Your task to perform on an android device: turn notification dots off Image 0: 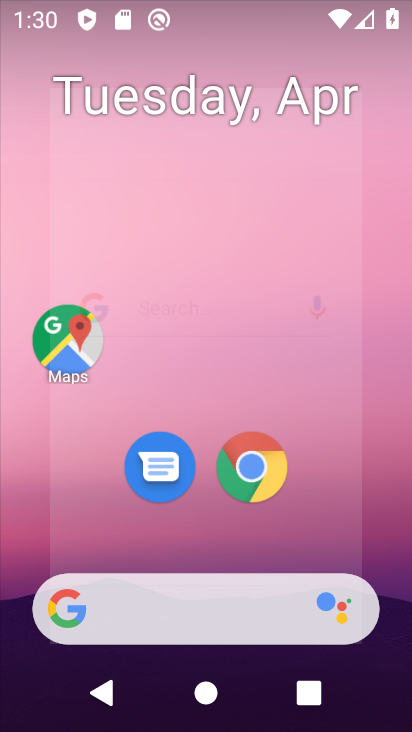
Step 0: drag from (390, 540) to (385, 460)
Your task to perform on an android device: turn notification dots off Image 1: 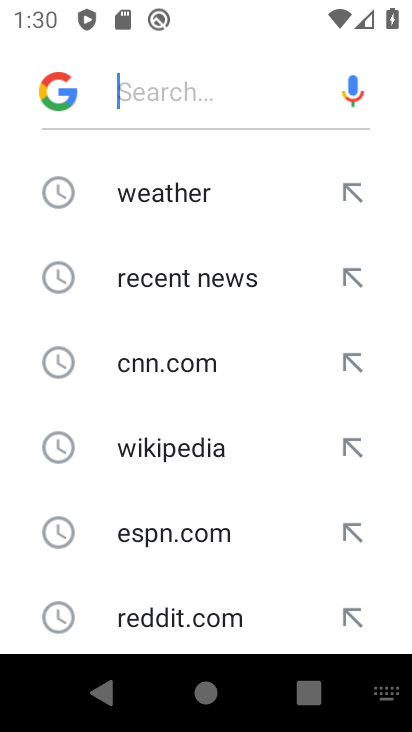
Step 1: press home button
Your task to perform on an android device: turn notification dots off Image 2: 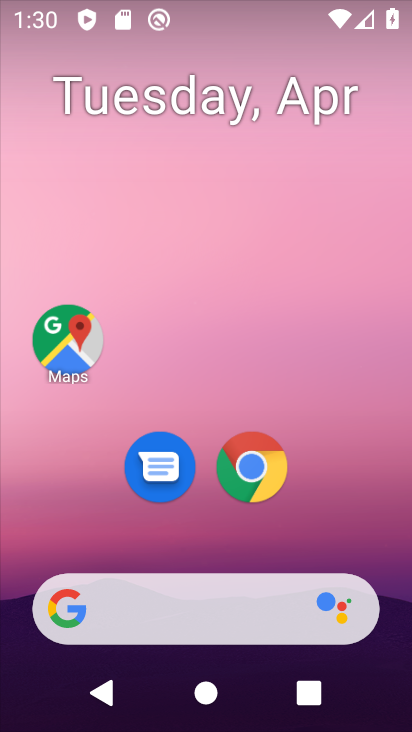
Step 2: drag from (374, 508) to (364, 131)
Your task to perform on an android device: turn notification dots off Image 3: 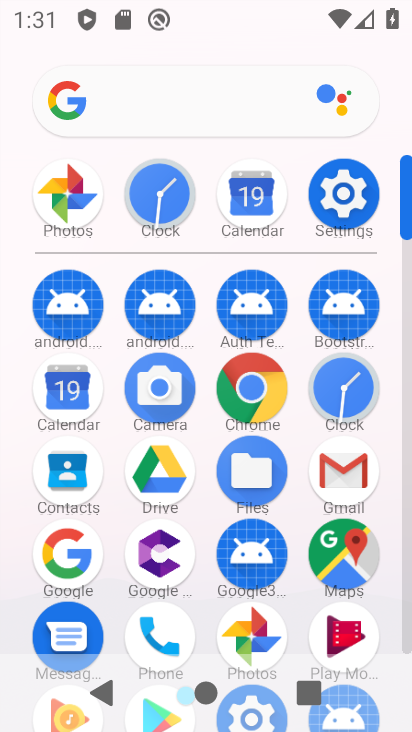
Step 3: click (340, 187)
Your task to perform on an android device: turn notification dots off Image 4: 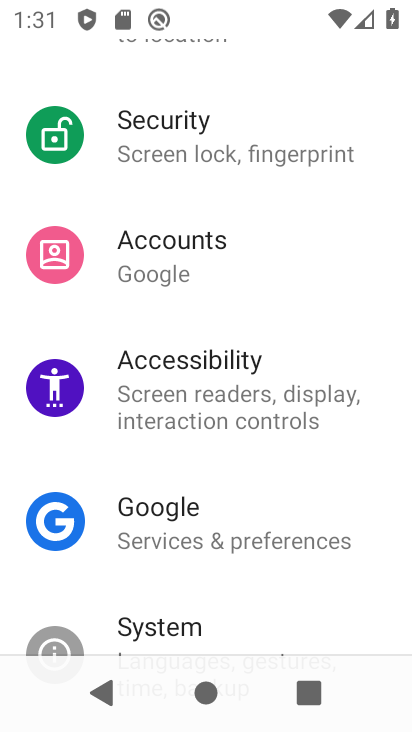
Step 4: drag from (377, 560) to (384, 255)
Your task to perform on an android device: turn notification dots off Image 5: 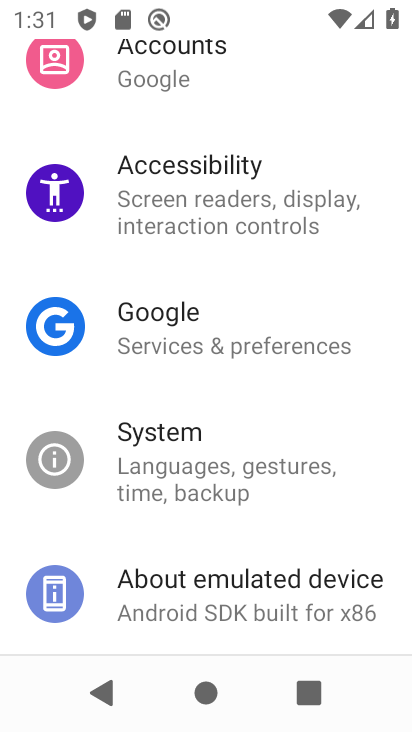
Step 5: drag from (391, 226) to (379, 415)
Your task to perform on an android device: turn notification dots off Image 6: 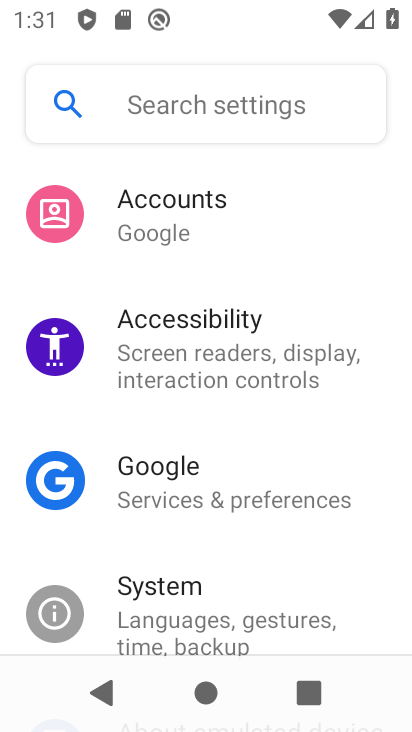
Step 6: drag from (382, 253) to (382, 464)
Your task to perform on an android device: turn notification dots off Image 7: 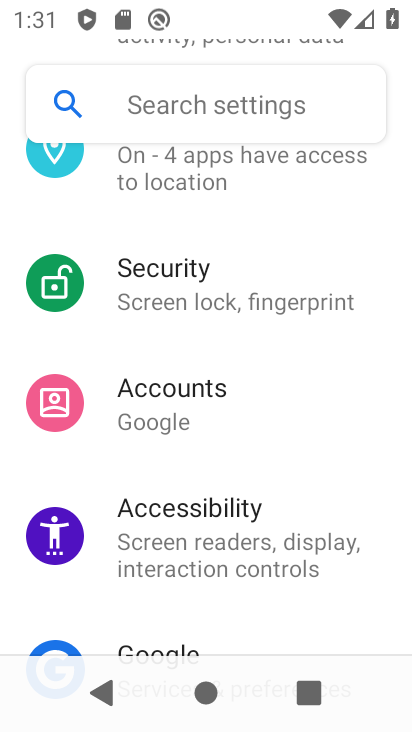
Step 7: drag from (388, 251) to (382, 426)
Your task to perform on an android device: turn notification dots off Image 8: 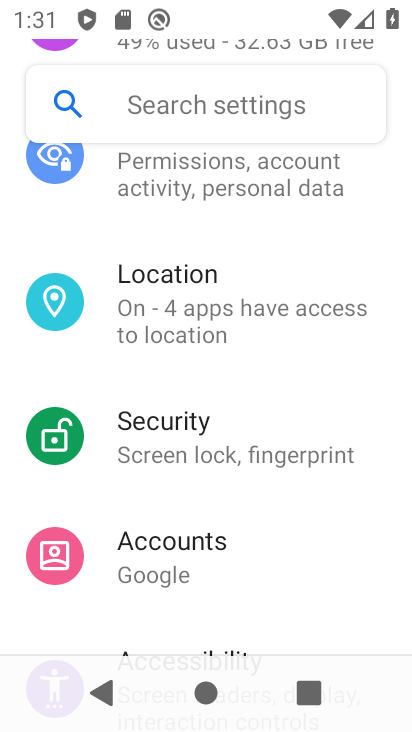
Step 8: drag from (387, 257) to (388, 432)
Your task to perform on an android device: turn notification dots off Image 9: 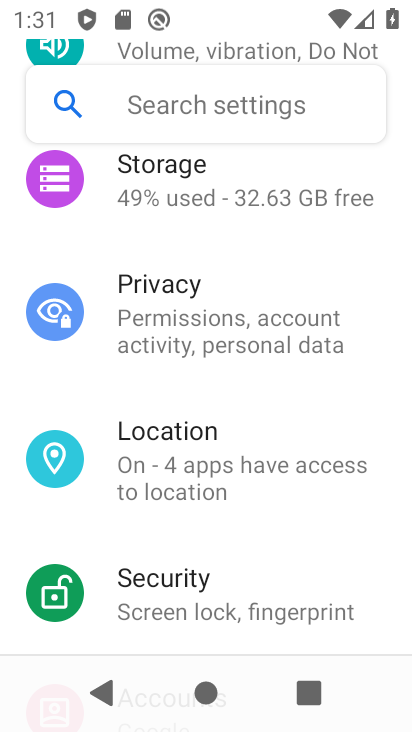
Step 9: drag from (395, 247) to (385, 439)
Your task to perform on an android device: turn notification dots off Image 10: 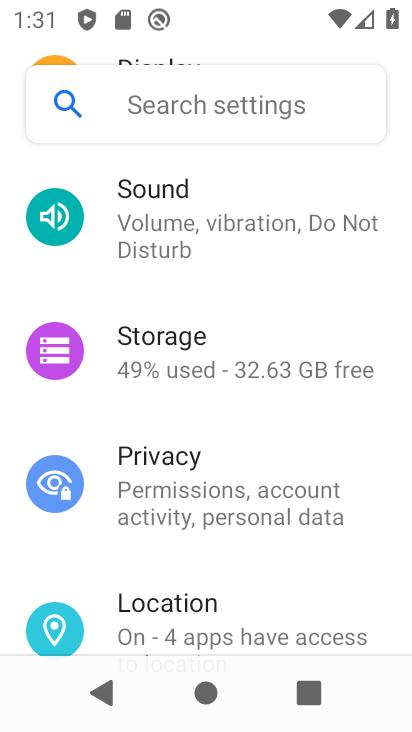
Step 10: drag from (393, 191) to (381, 428)
Your task to perform on an android device: turn notification dots off Image 11: 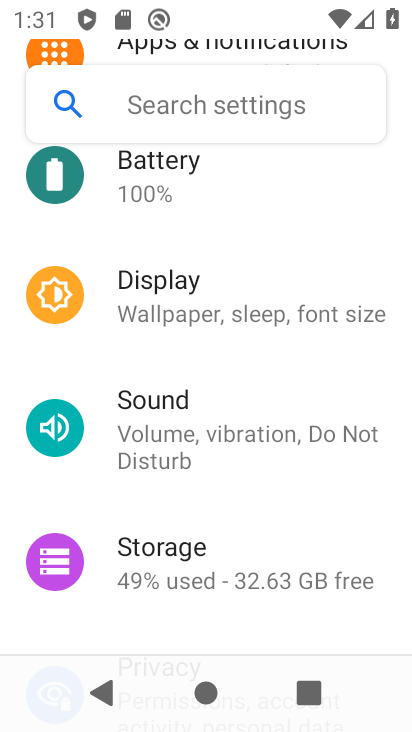
Step 11: drag from (395, 228) to (394, 424)
Your task to perform on an android device: turn notification dots off Image 12: 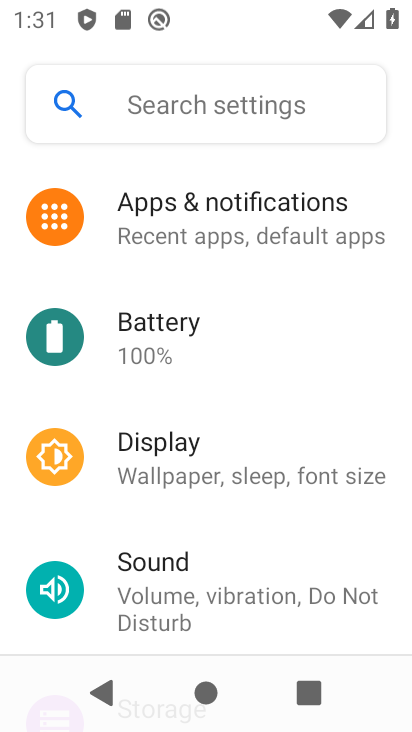
Step 12: click (257, 209)
Your task to perform on an android device: turn notification dots off Image 13: 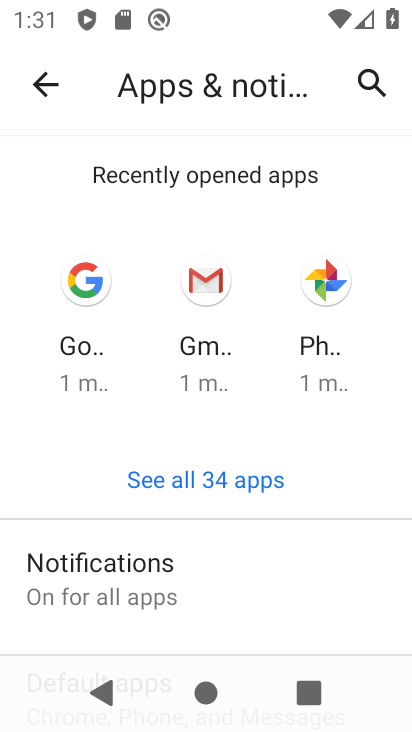
Step 13: drag from (336, 585) to (371, 274)
Your task to perform on an android device: turn notification dots off Image 14: 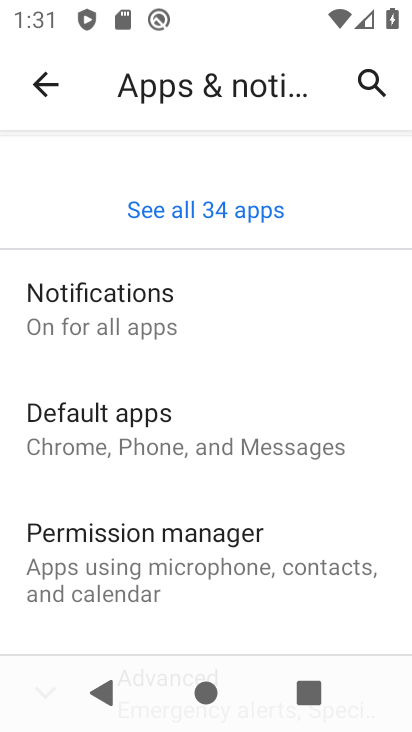
Step 14: click (126, 304)
Your task to perform on an android device: turn notification dots off Image 15: 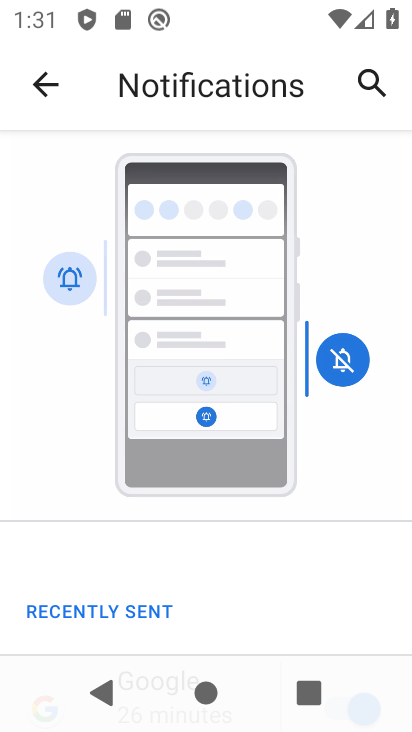
Step 15: drag from (355, 542) to (377, 284)
Your task to perform on an android device: turn notification dots off Image 16: 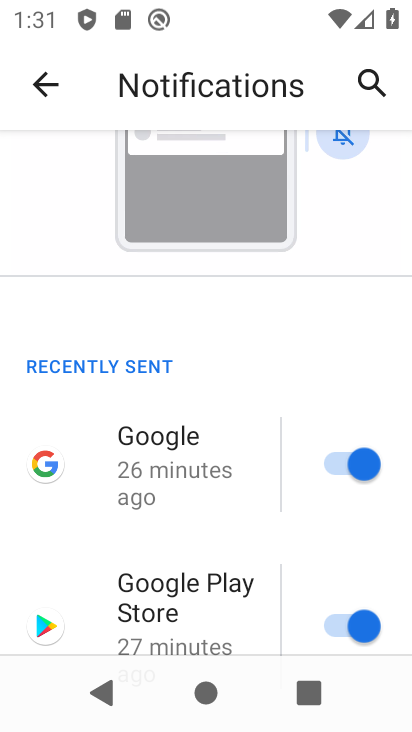
Step 16: drag from (293, 551) to (296, 285)
Your task to perform on an android device: turn notification dots off Image 17: 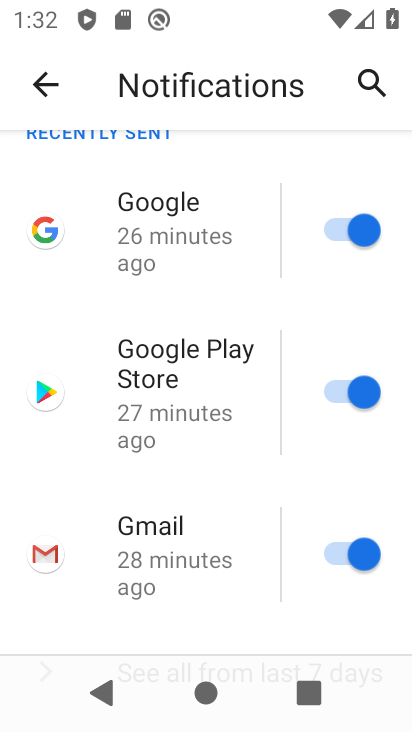
Step 17: drag from (244, 580) to (259, 287)
Your task to perform on an android device: turn notification dots off Image 18: 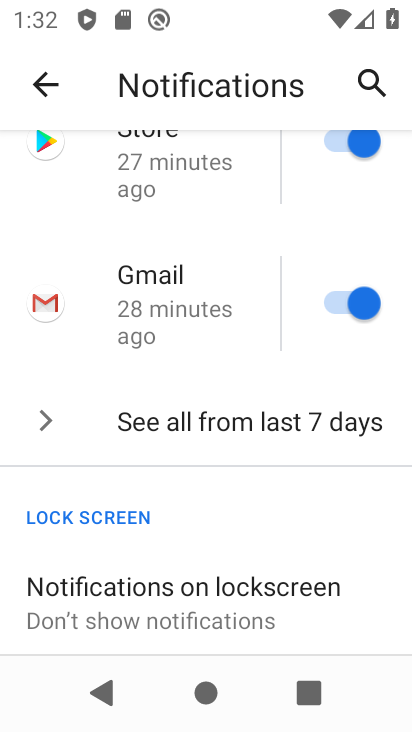
Step 18: drag from (259, 493) to (268, 220)
Your task to perform on an android device: turn notification dots off Image 19: 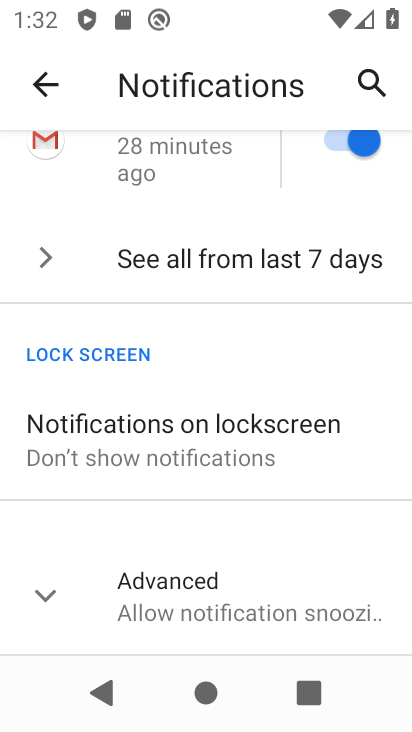
Step 19: click (277, 599)
Your task to perform on an android device: turn notification dots off Image 20: 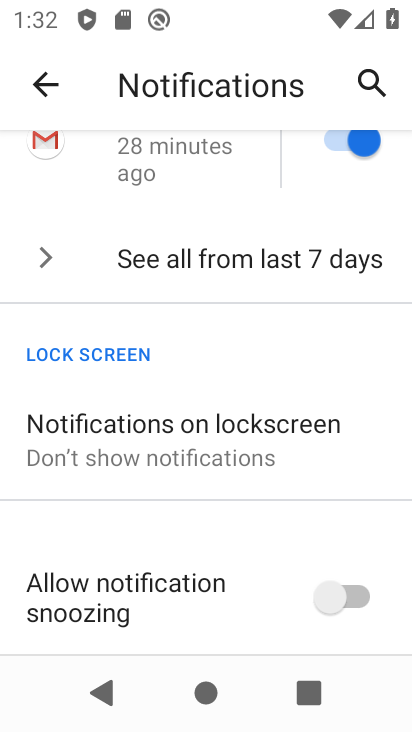
Step 20: drag from (264, 581) to (248, 255)
Your task to perform on an android device: turn notification dots off Image 21: 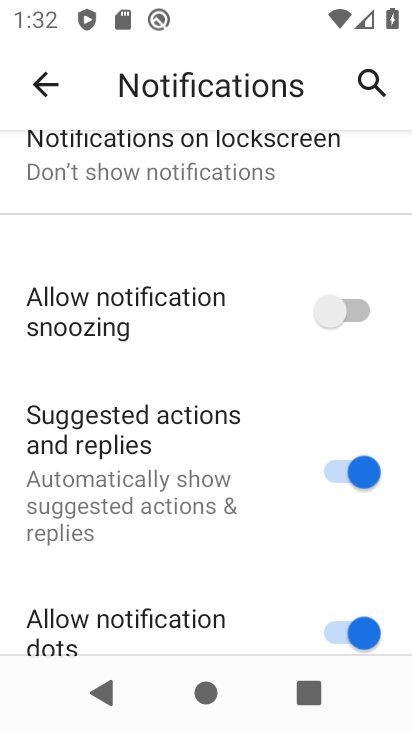
Step 21: drag from (278, 515) to (274, 307)
Your task to perform on an android device: turn notification dots off Image 22: 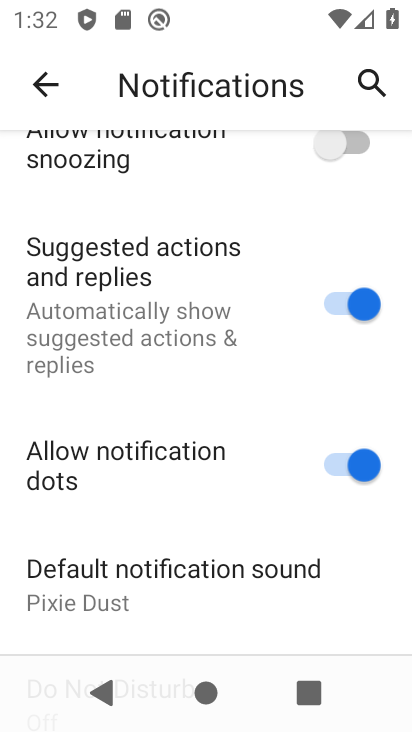
Step 22: click (343, 472)
Your task to perform on an android device: turn notification dots off Image 23: 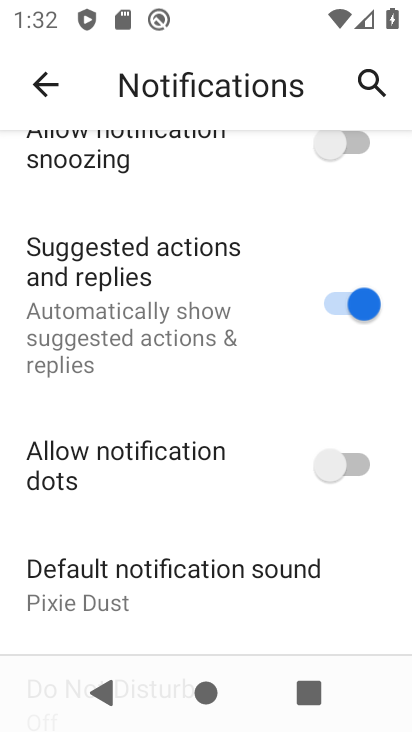
Step 23: task complete